Your task to perform on an android device: open app "Google Play services" Image 0: 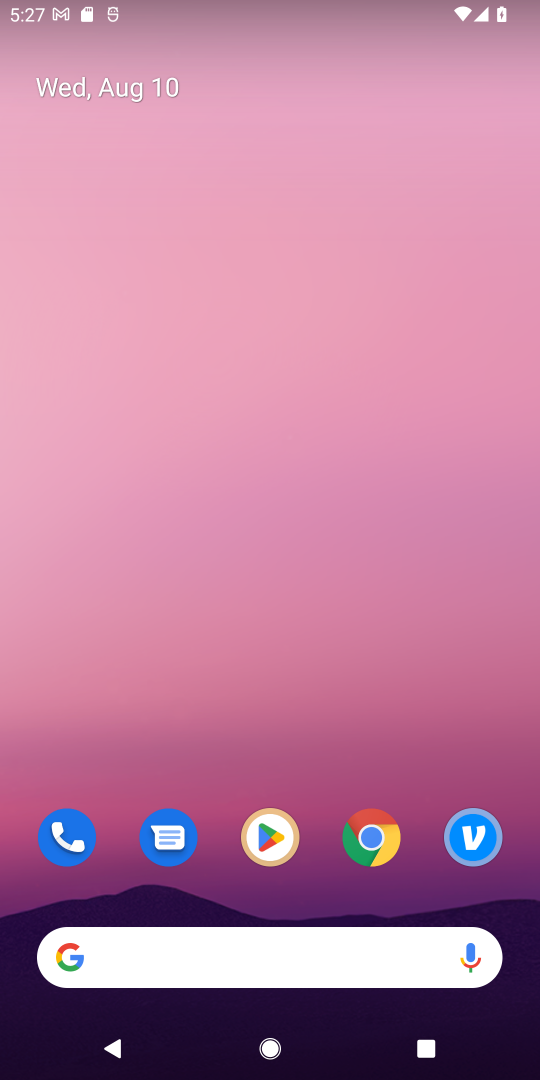
Step 0: press home button
Your task to perform on an android device: open app "Google Play services" Image 1: 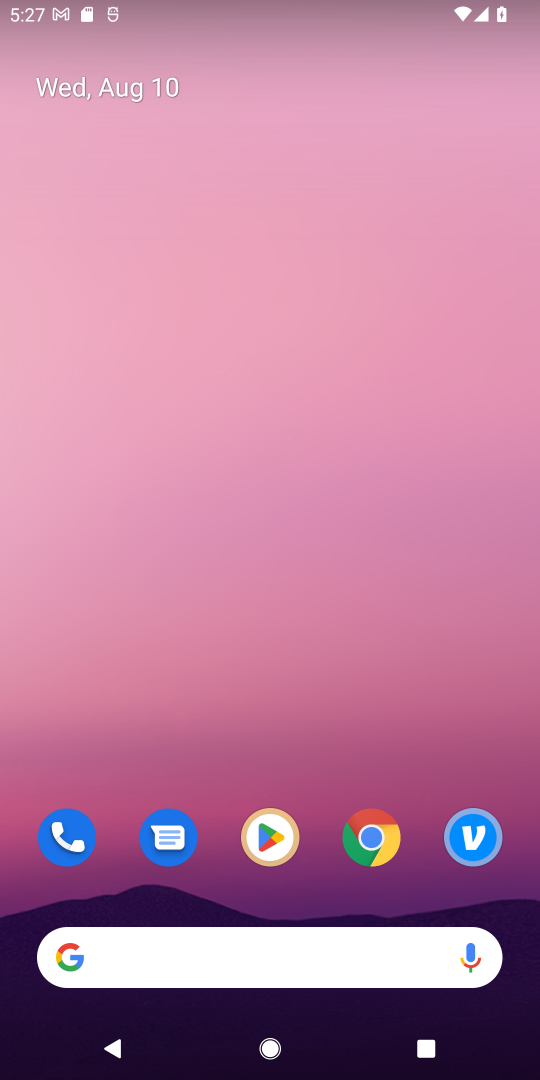
Step 1: click (274, 835)
Your task to perform on an android device: open app "Google Play services" Image 2: 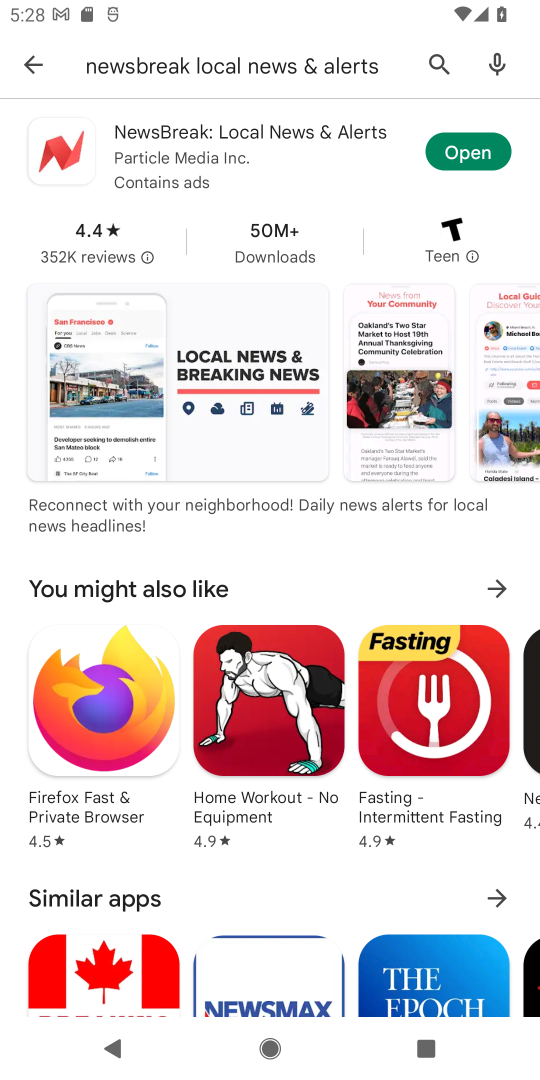
Step 2: click (428, 57)
Your task to perform on an android device: open app "Google Play services" Image 3: 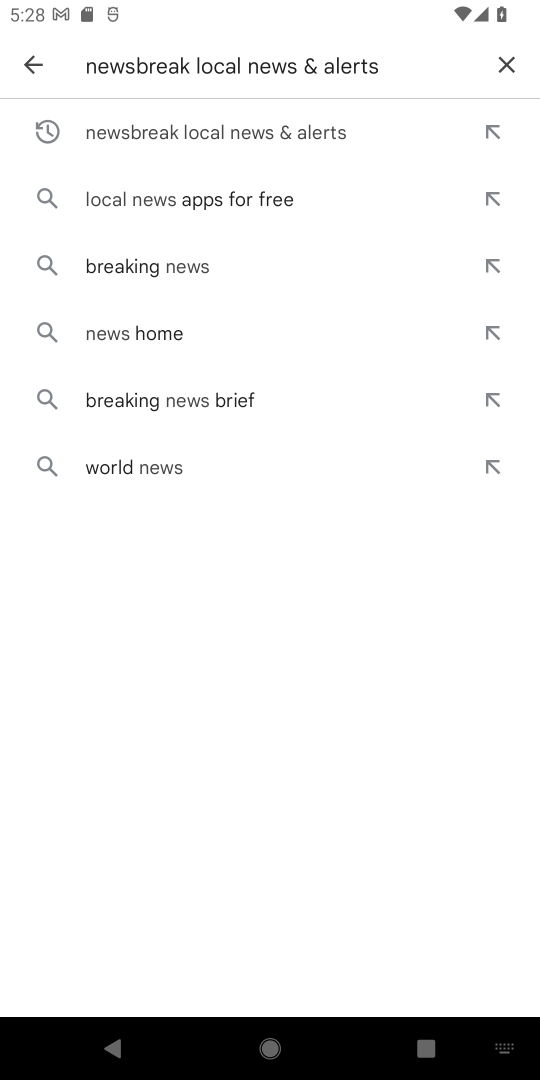
Step 3: click (507, 51)
Your task to perform on an android device: open app "Google Play services" Image 4: 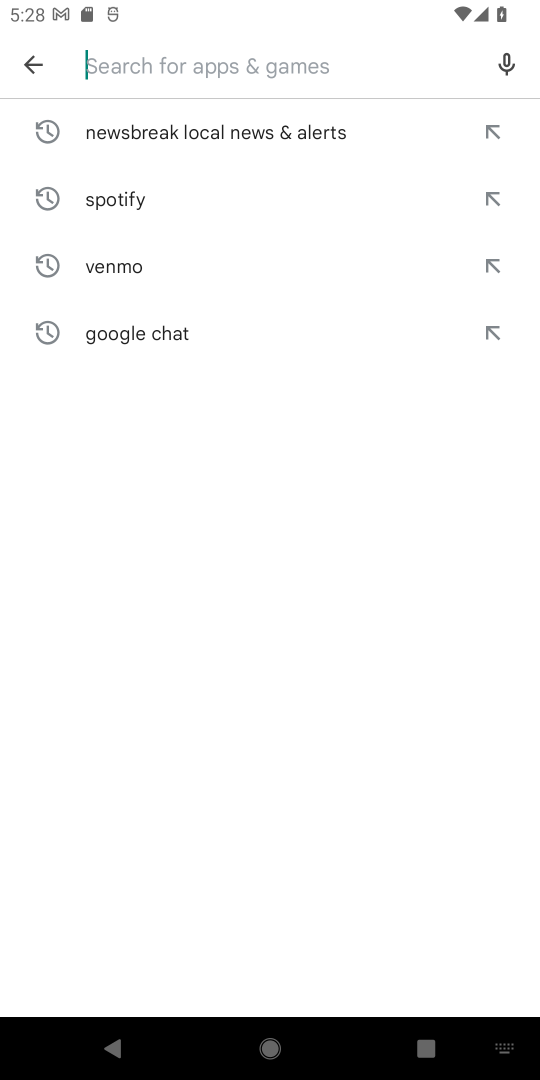
Step 4: type "Google Play services"
Your task to perform on an android device: open app "Google Play services" Image 5: 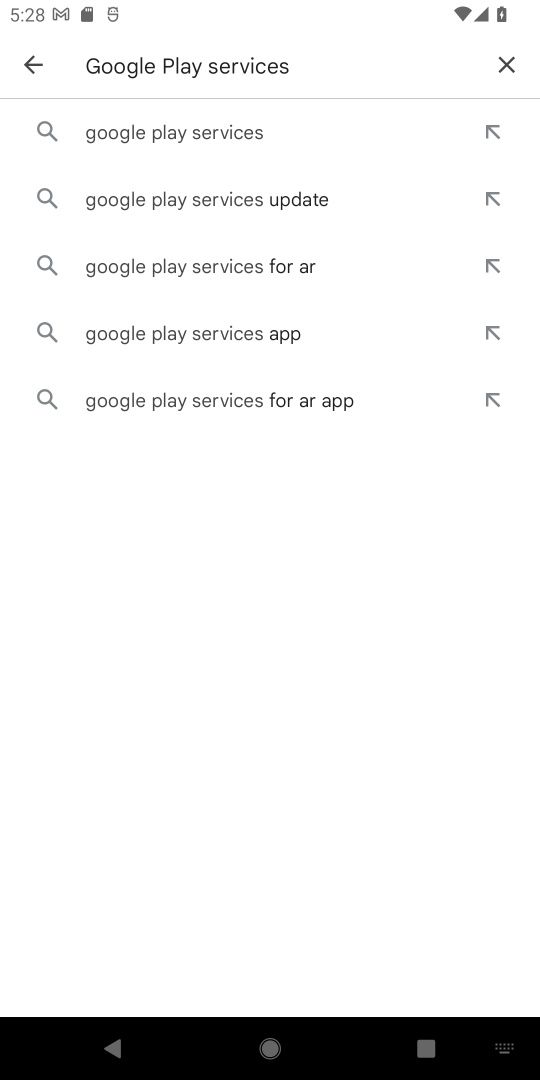
Step 5: click (217, 120)
Your task to perform on an android device: open app "Google Play services" Image 6: 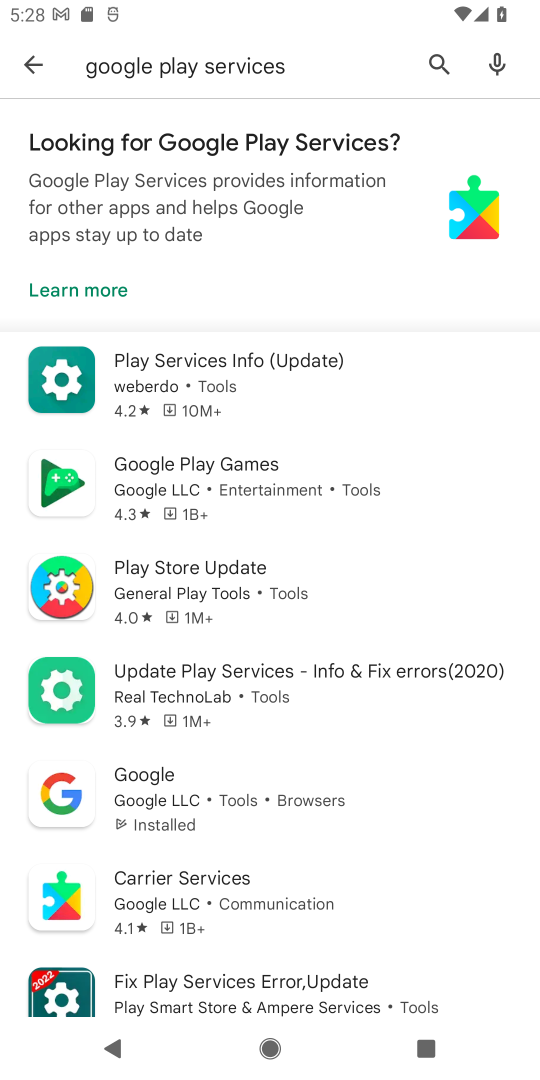
Step 6: task complete